Your task to perform on an android device: Show me recent news Image 0: 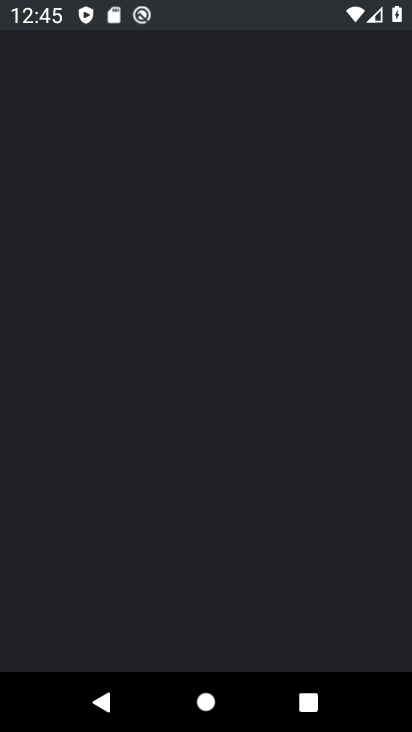
Step 0: drag from (207, 547) to (394, 694)
Your task to perform on an android device: Show me recent news Image 1: 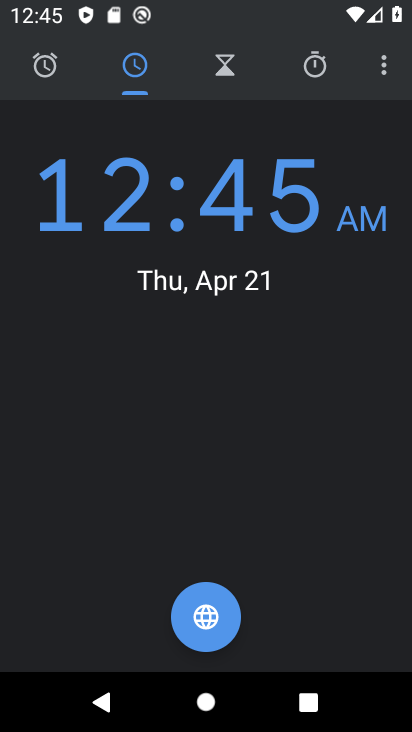
Step 1: press home button
Your task to perform on an android device: Show me recent news Image 2: 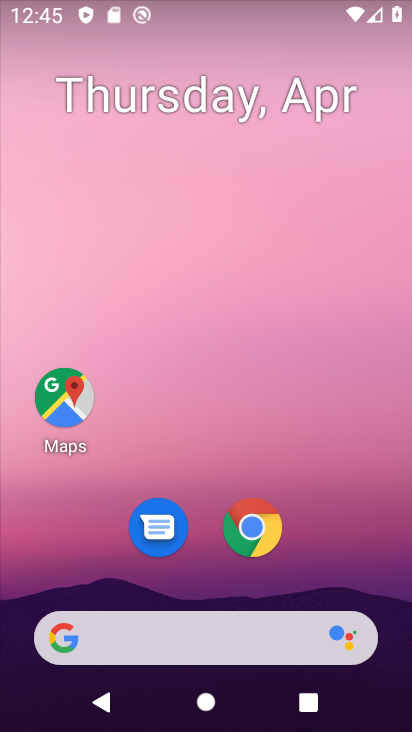
Step 2: click (174, 626)
Your task to perform on an android device: Show me recent news Image 3: 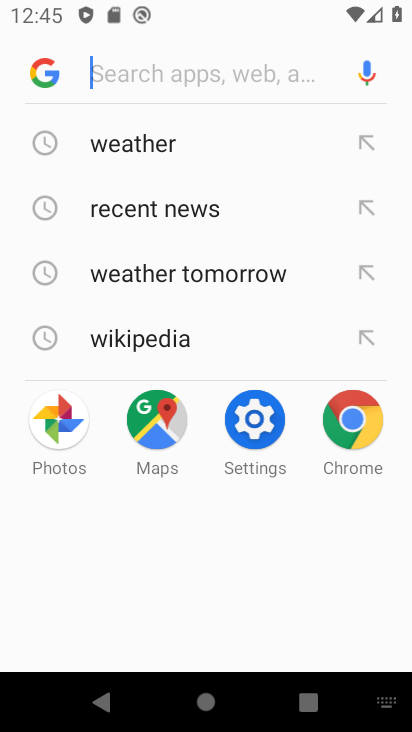
Step 3: click (201, 227)
Your task to perform on an android device: Show me recent news Image 4: 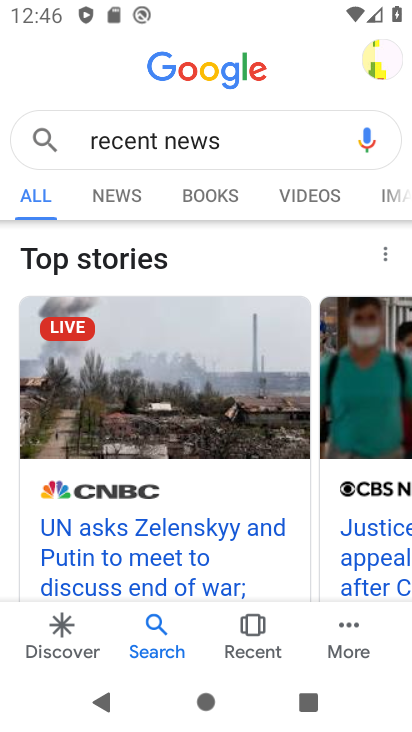
Step 4: task complete